Your task to perform on an android device: Search for a good pizza place on Maps Image 0: 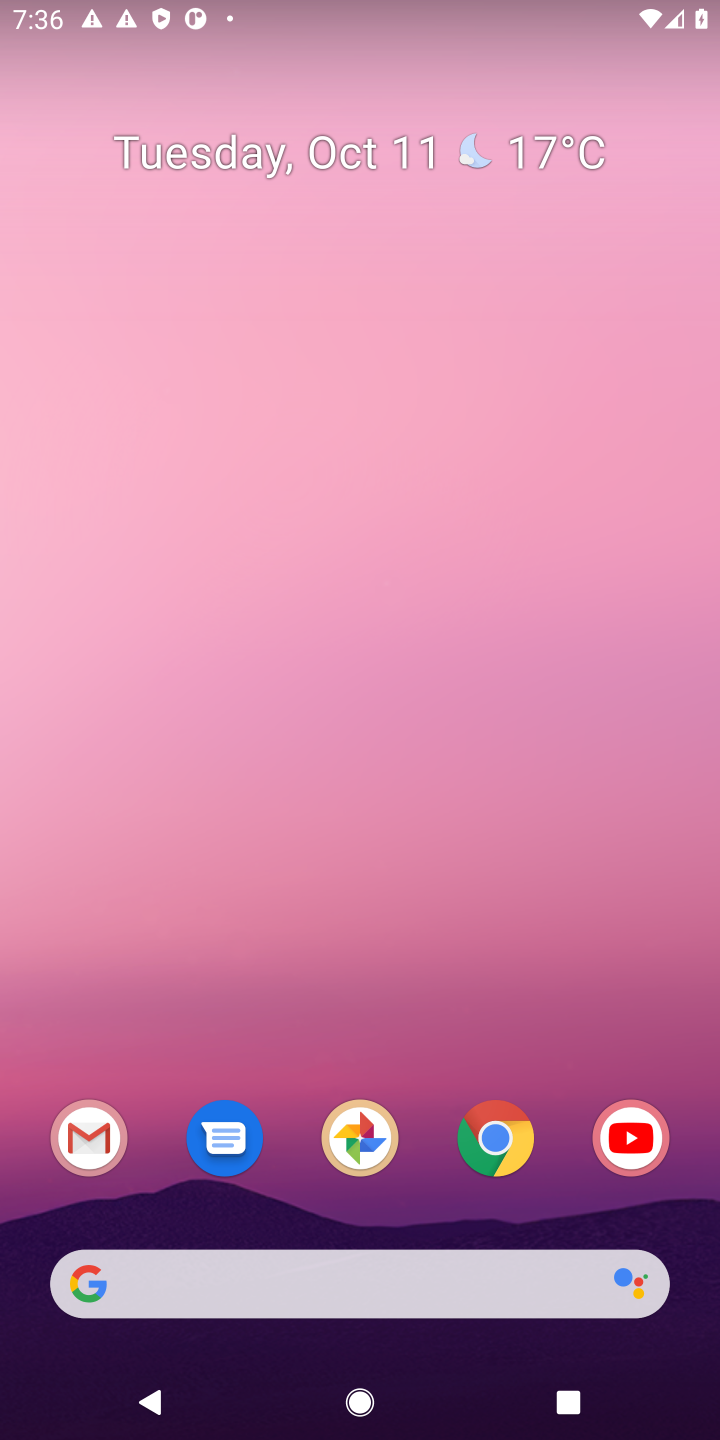
Step 0: drag from (425, 1057) to (430, 586)
Your task to perform on an android device: Search for a good pizza place on Maps Image 1: 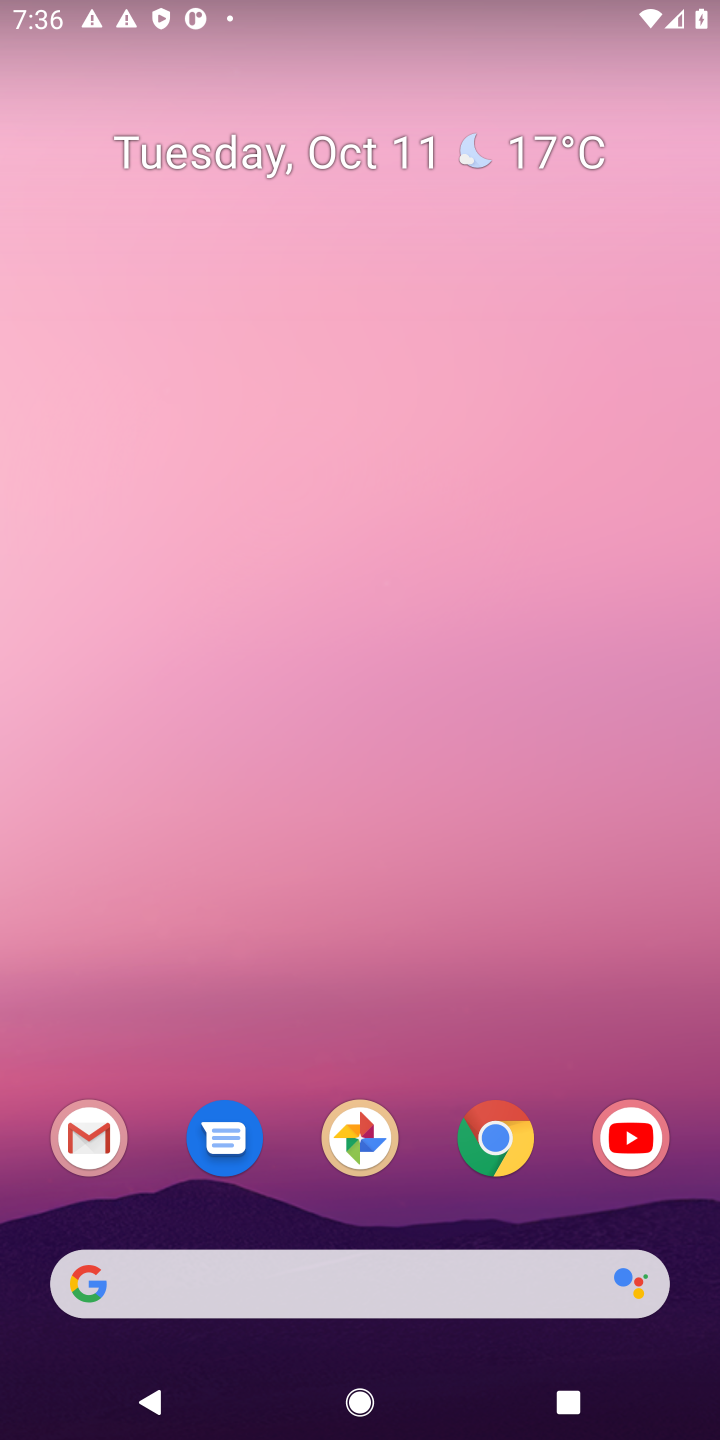
Step 1: drag from (419, 1040) to (351, 370)
Your task to perform on an android device: Search for a good pizza place on Maps Image 2: 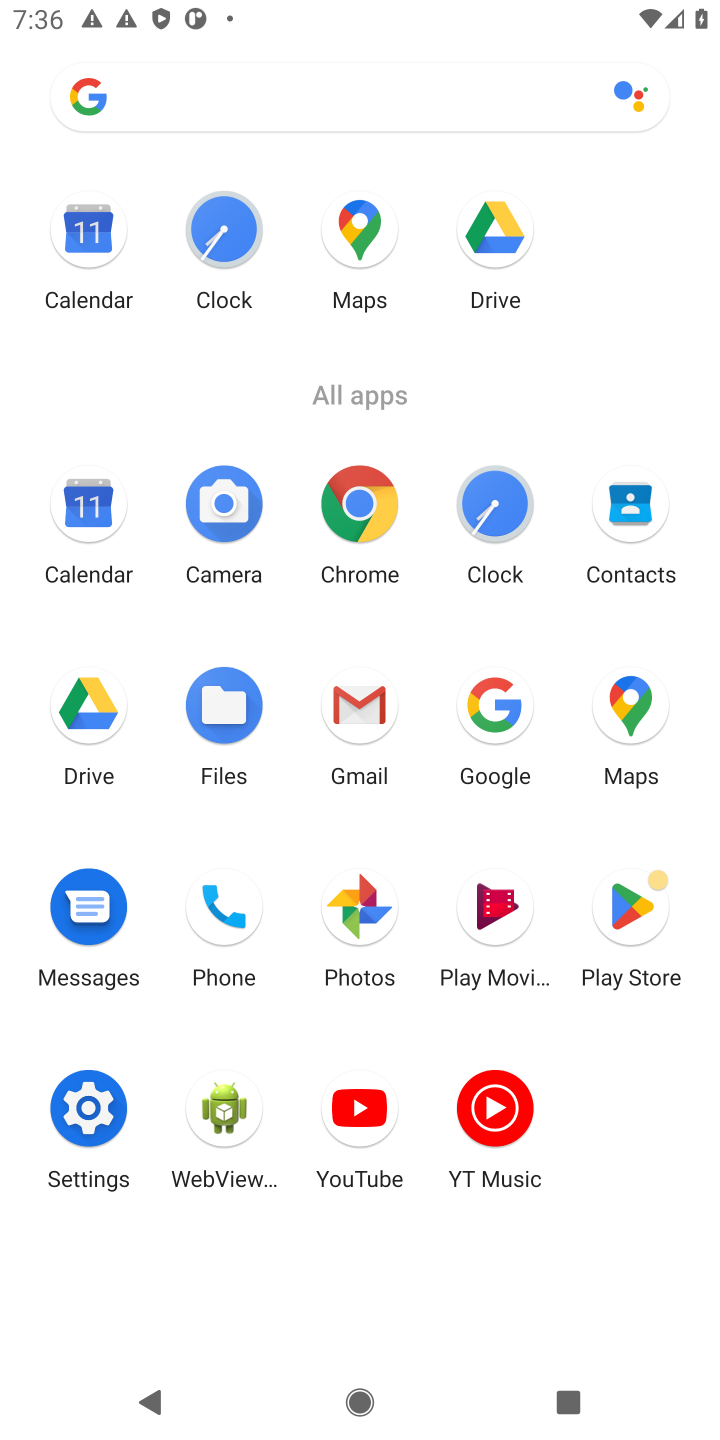
Step 2: click (359, 219)
Your task to perform on an android device: Search for a good pizza place on Maps Image 3: 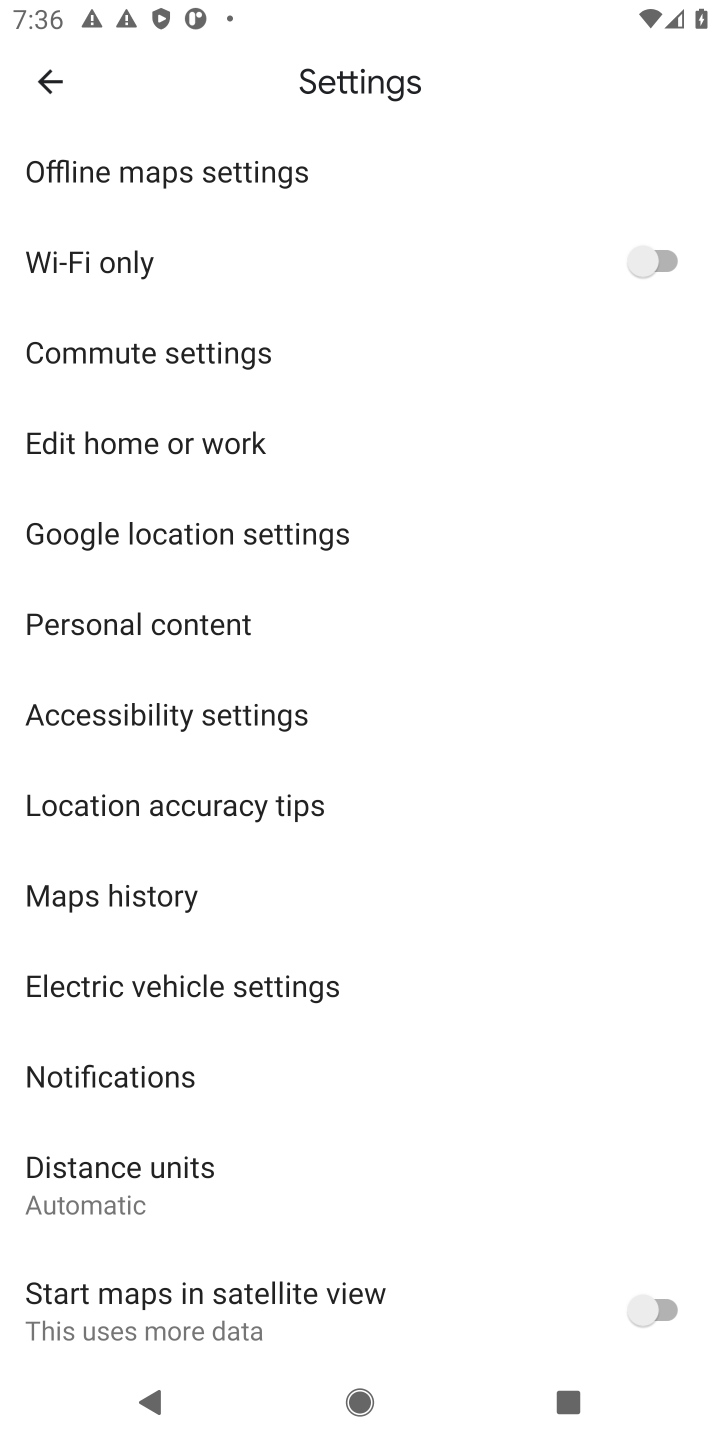
Step 3: press back button
Your task to perform on an android device: Search for a good pizza place on Maps Image 4: 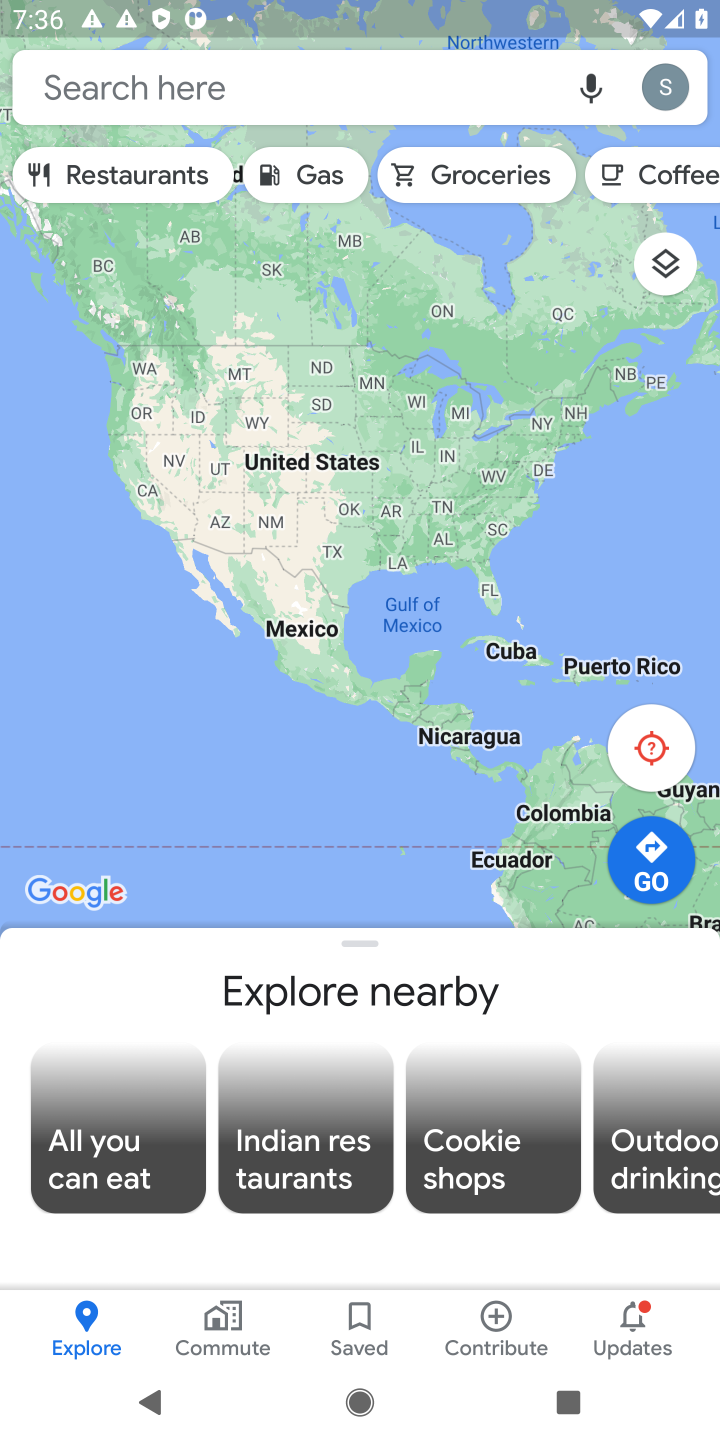
Step 4: click (279, 82)
Your task to perform on an android device: Search for a good pizza place on Maps Image 5: 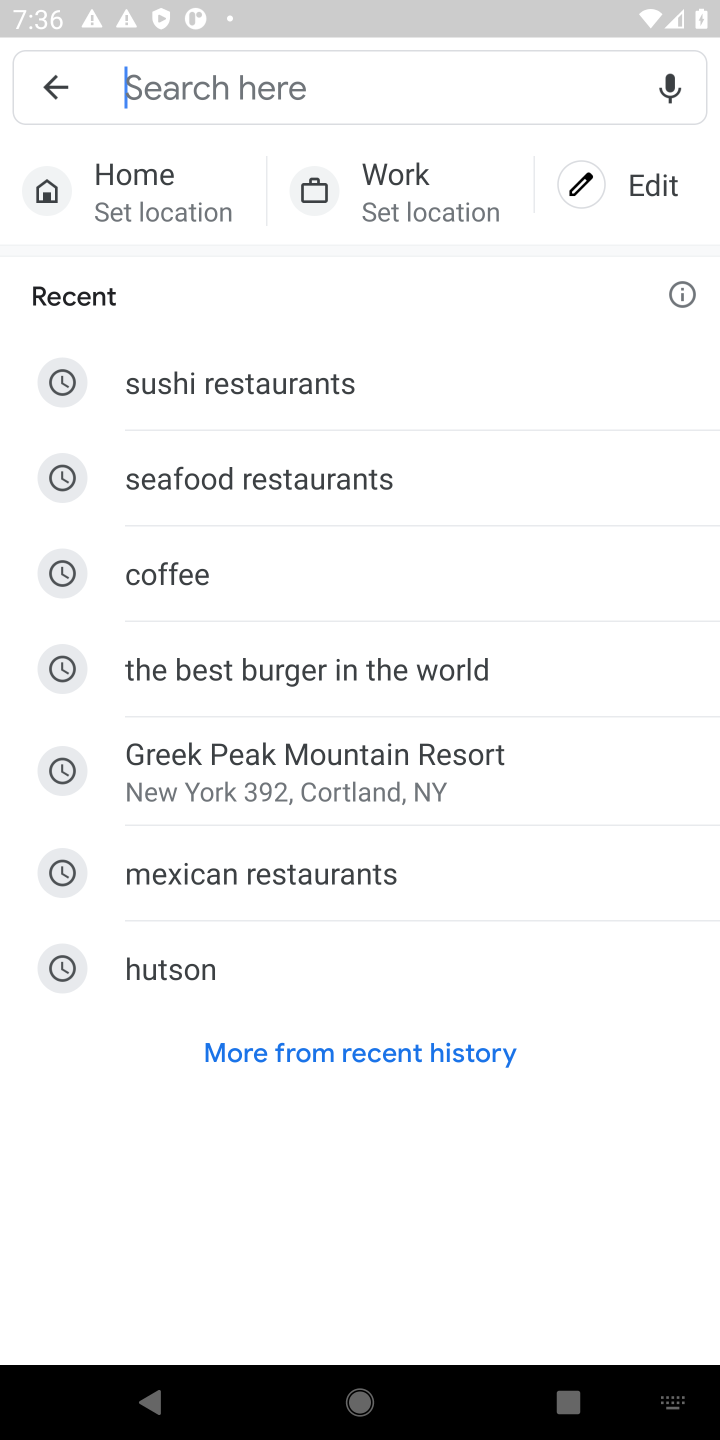
Step 5: type "good pizza place"
Your task to perform on an android device: Search for a good pizza place on Maps Image 6: 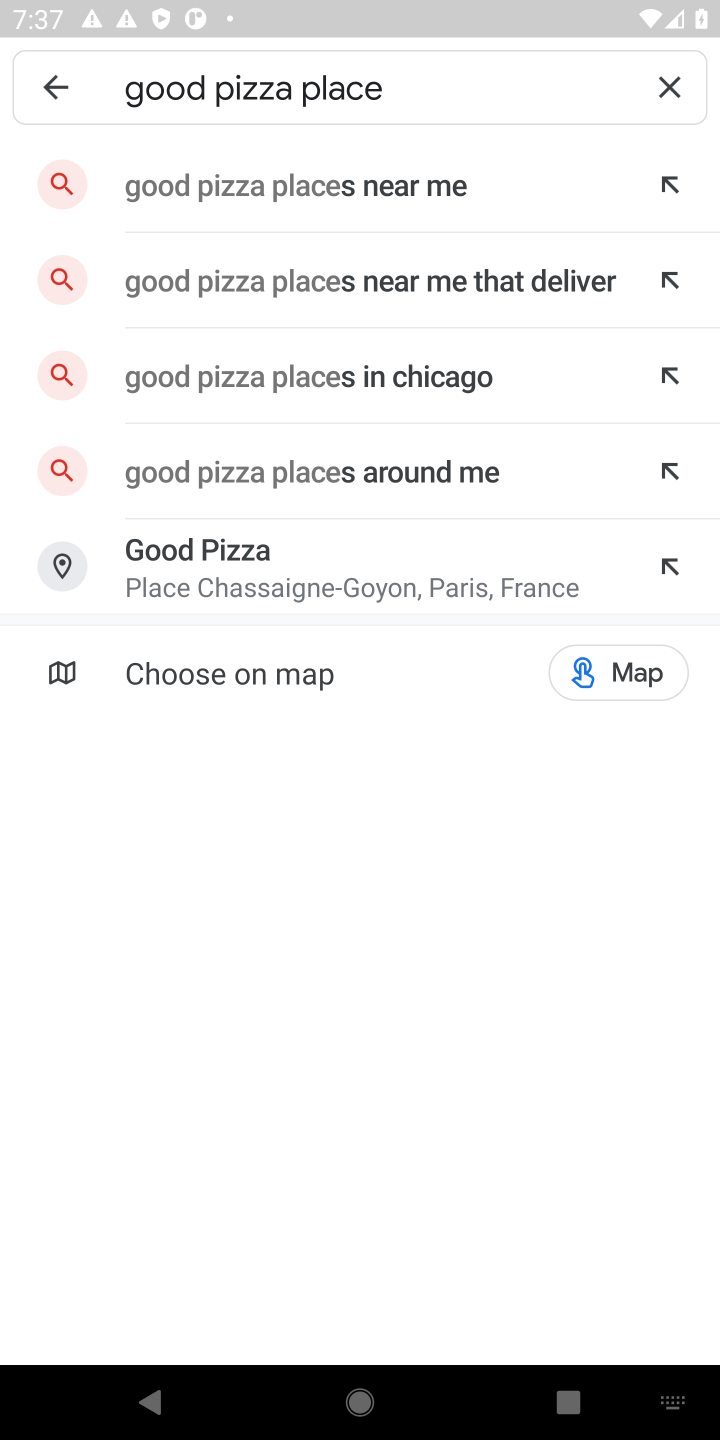
Step 6: click (296, 171)
Your task to perform on an android device: Search for a good pizza place on Maps Image 7: 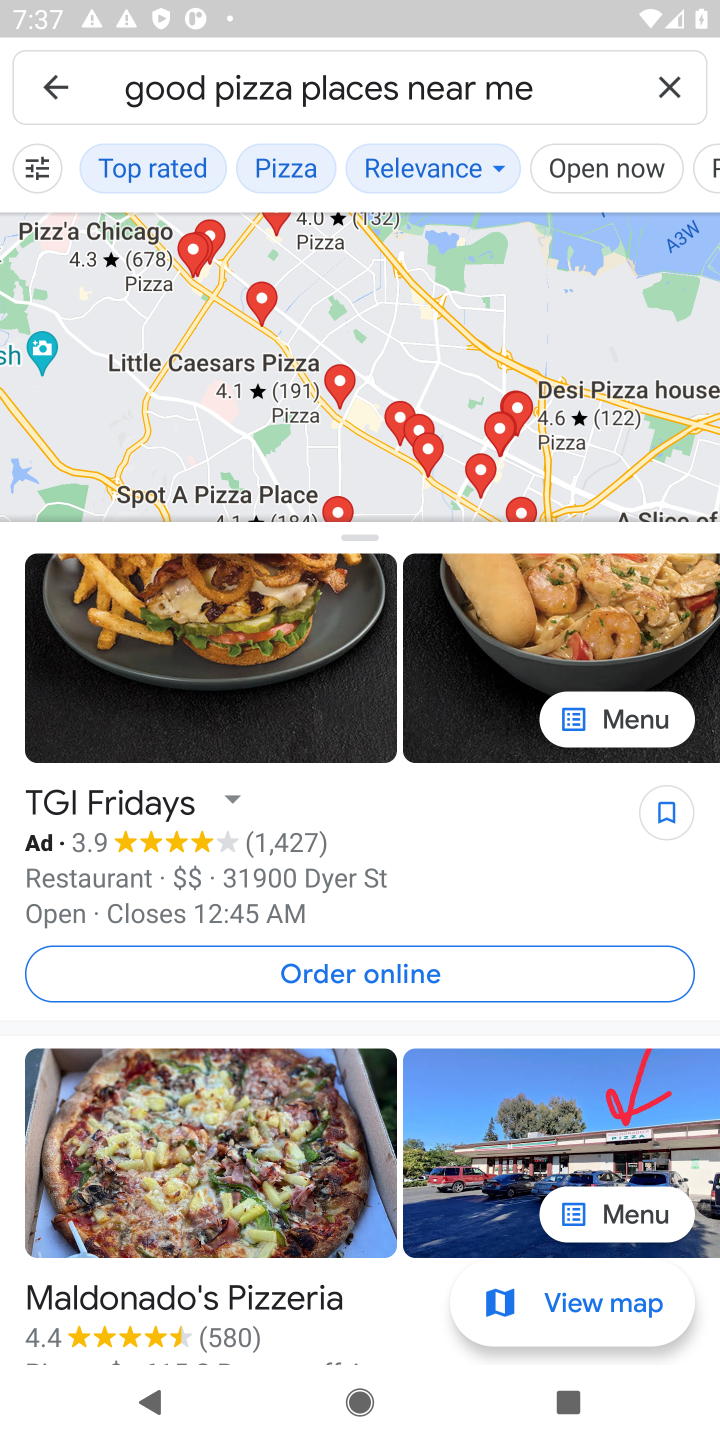
Step 7: task complete